Your task to perform on an android device: turn on priority inbox in the gmail app Image 0: 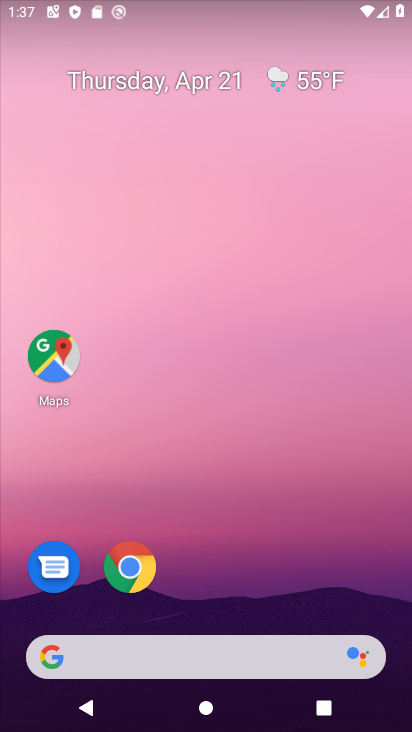
Step 0: drag from (207, 604) to (249, 31)
Your task to perform on an android device: turn on priority inbox in the gmail app Image 1: 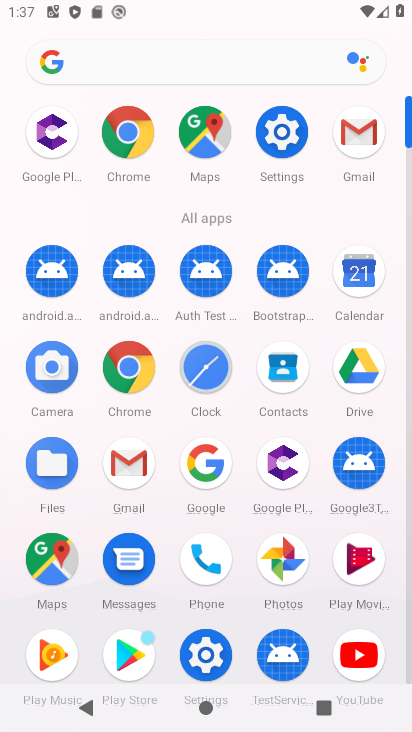
Step 1: click (128, 453)
Your task to perform on an android device: turn on priority inbox in the gmail app Image 2: 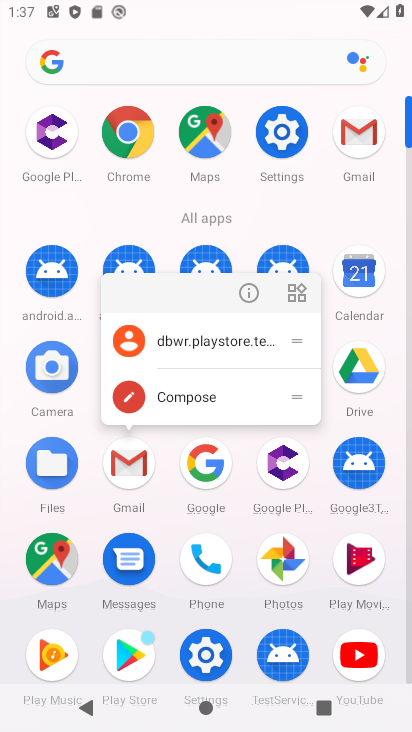
Step 2: click (122, 462)
Your task to perform on an android device: turn on priority inbox in the gmail app Image 3: 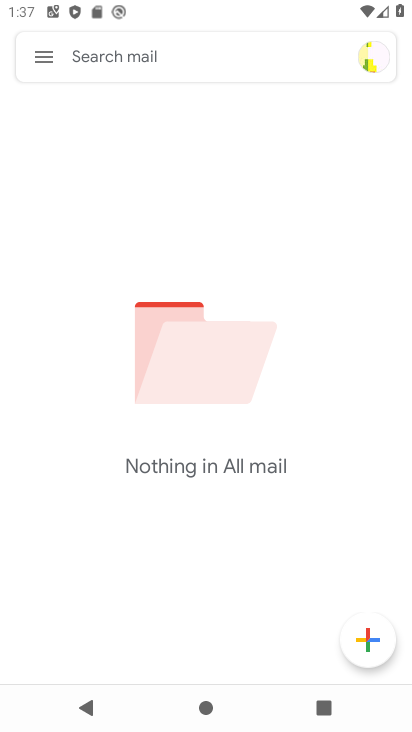
Step 3: click (28, 41)
Your task to perform on an android device: turn on priority inbox in the gmail app Image 4: 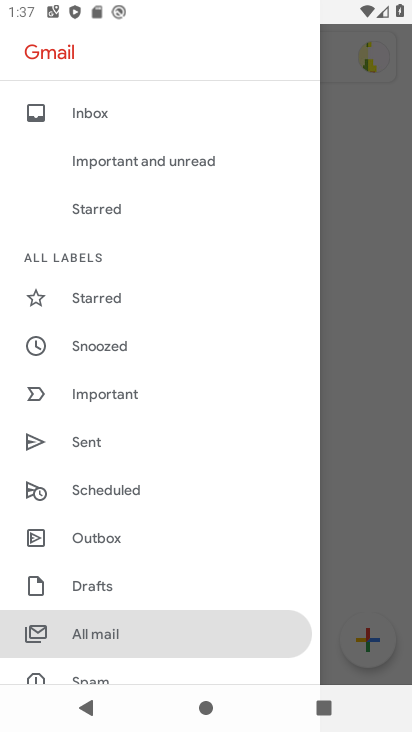
Step 4: drag from (156, 612) to (241, 187)
Your task to perform on an android device: turn on priority inbox in the gmail app Image 5: 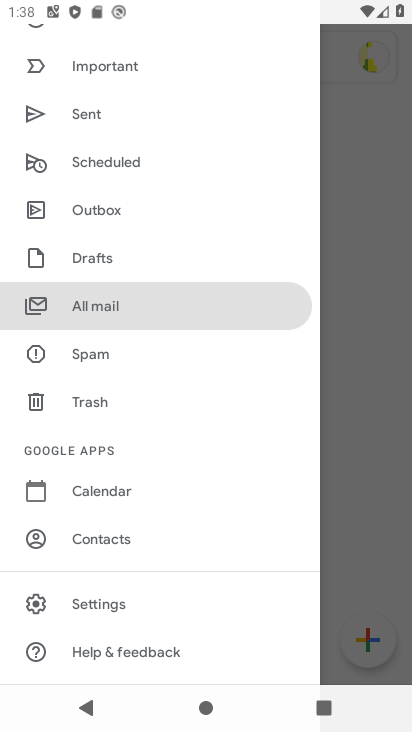
Step 5: click (114, 602)
Your task to perform on an android device: turn on priority inbox in the gmail app Image 6: 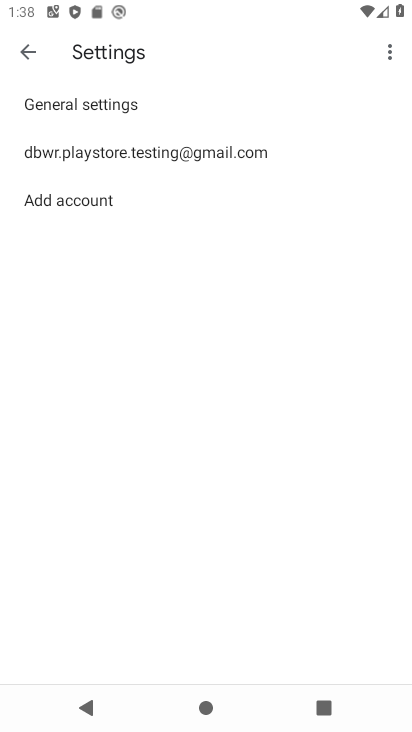
Step 6: click (222, 158)
Your task to perform on an android device: turn on priority inbox in the gmail app Image 7: 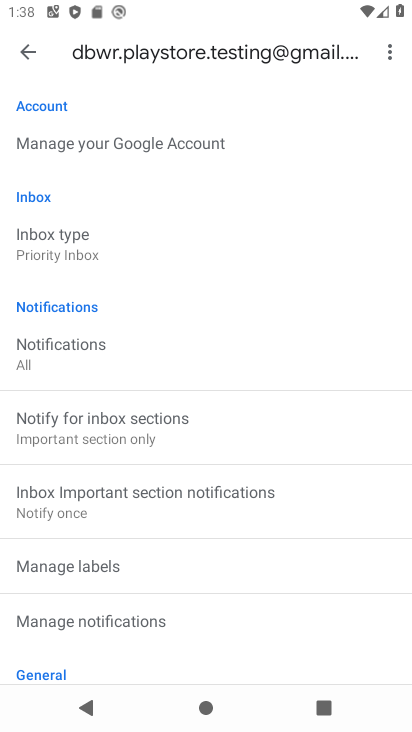
Step 7: click (85, 237)
Your task to perform on an android device: turn on priority inbox in the gmail app Image 8: 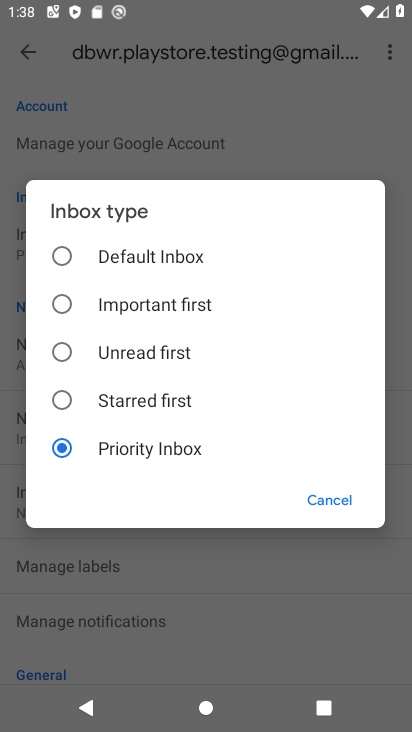
Step 8: click (77, 446)
Your task to perform on an android device: turn on priority inbox in the gmail app Image 9: 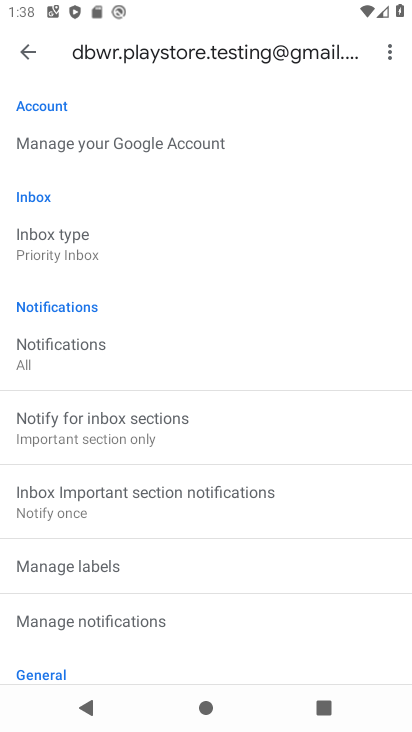
Step 9: task complete